Your task to perform on an android device: Open the Play Movies app and select the watchlist tab. Image 0: 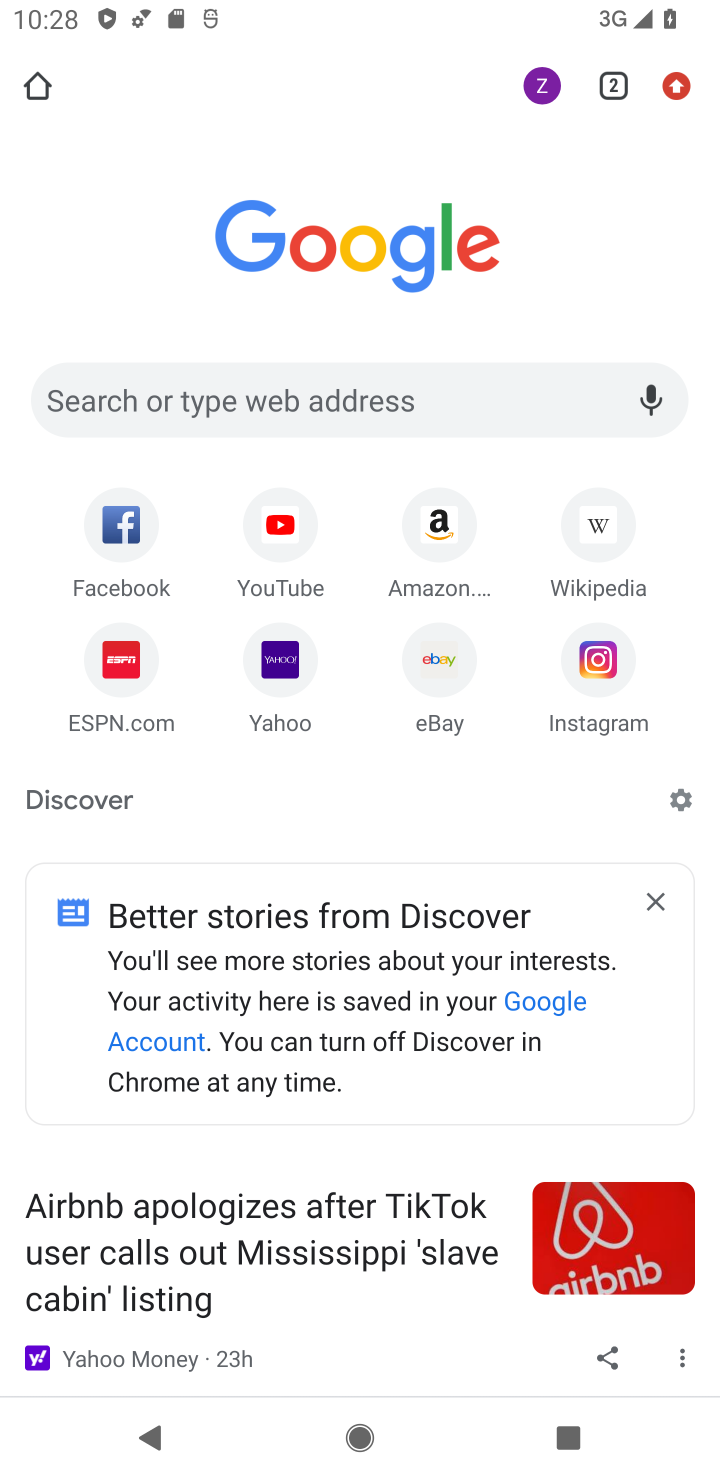
Step 0: press home button
Your task to perform on an android device: Open the Play Movies app and select the watchlist tab. Image 1: 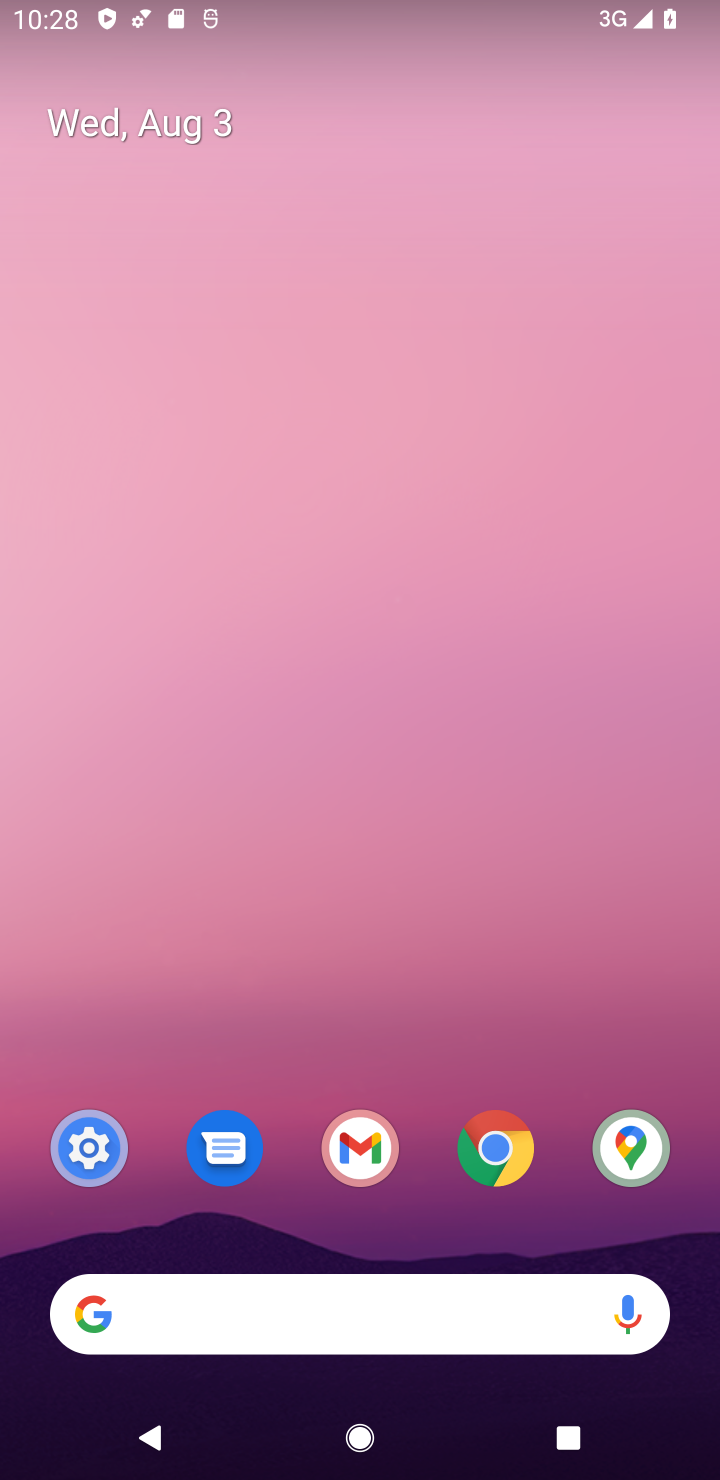
Step 1: task complete